Your task to perform on an android device: change keyboard looks Image 0: 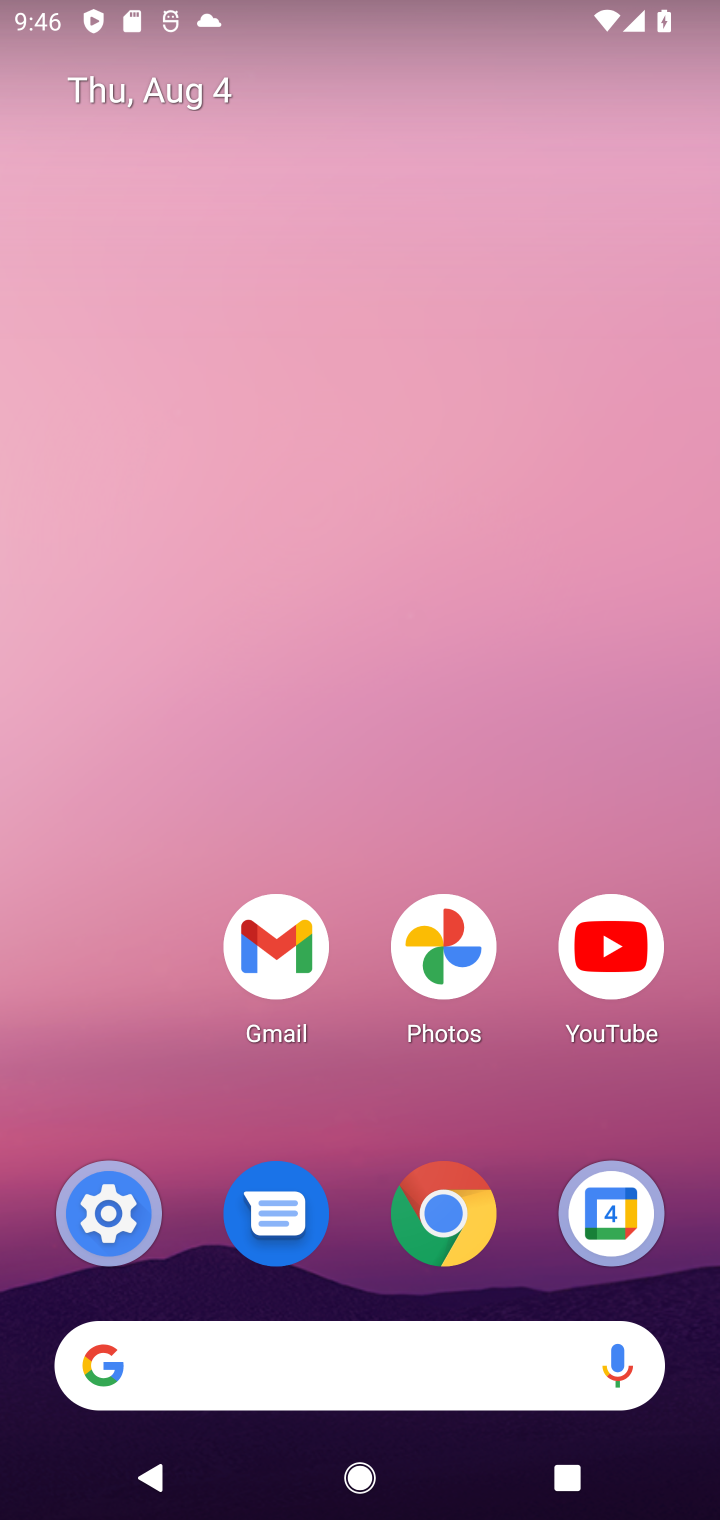
Step 0: drag from (355, 1178) to (336, 57)
Your task to perform on an android device: change keyboard looks Image 1: 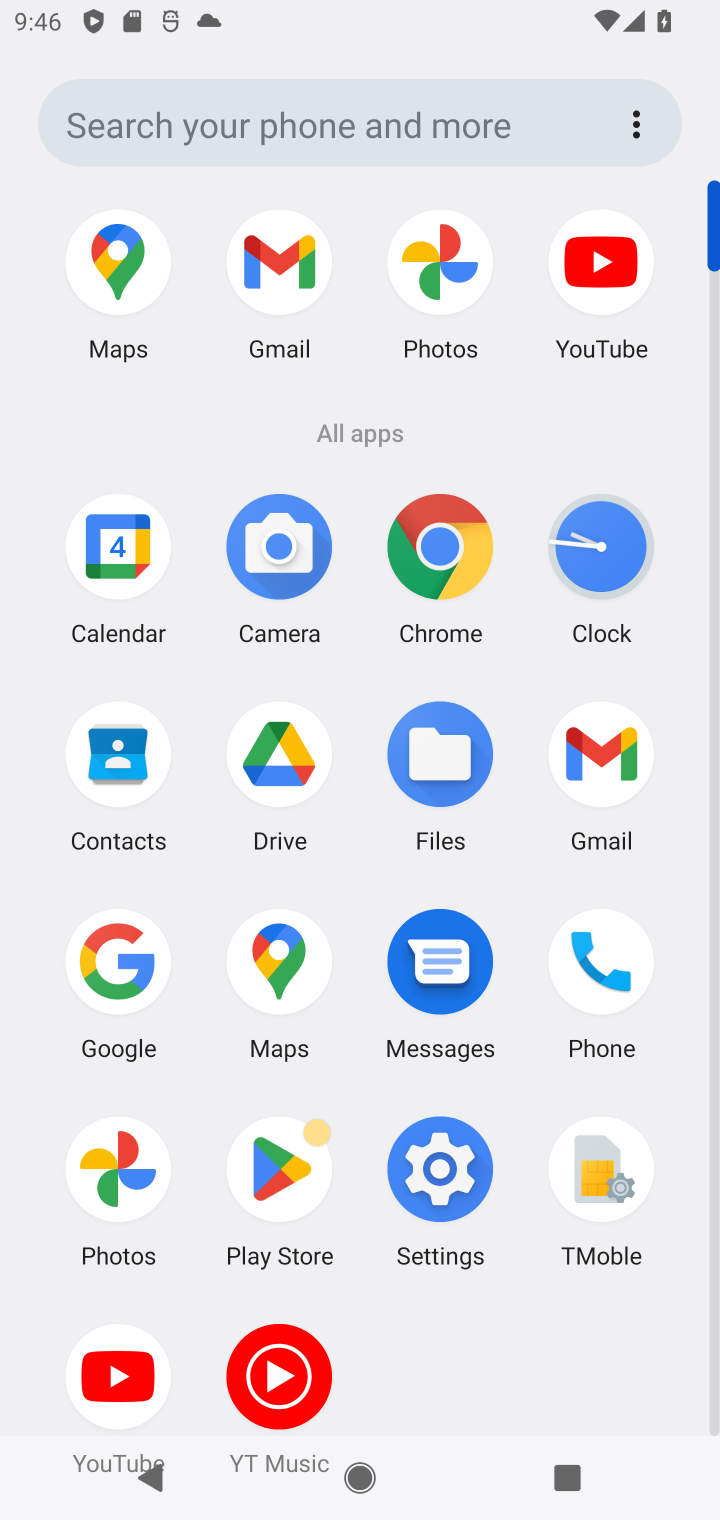
Step 1: click (423, 1148)
Your task to perform on an android device: change keyboard looks Image 2: 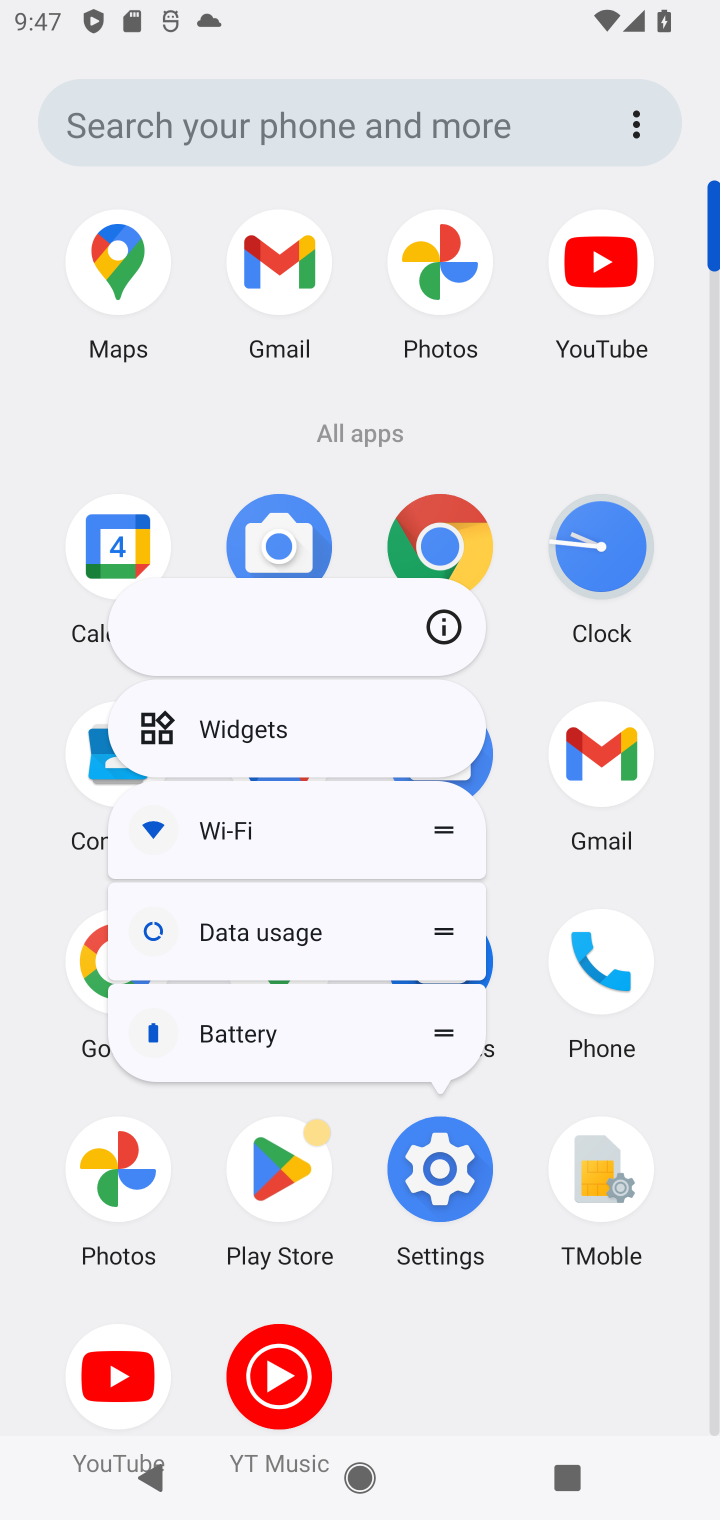
Step 2: click (430, 1160)
Your task to perform on an android device: change keyboard looks Image 3: 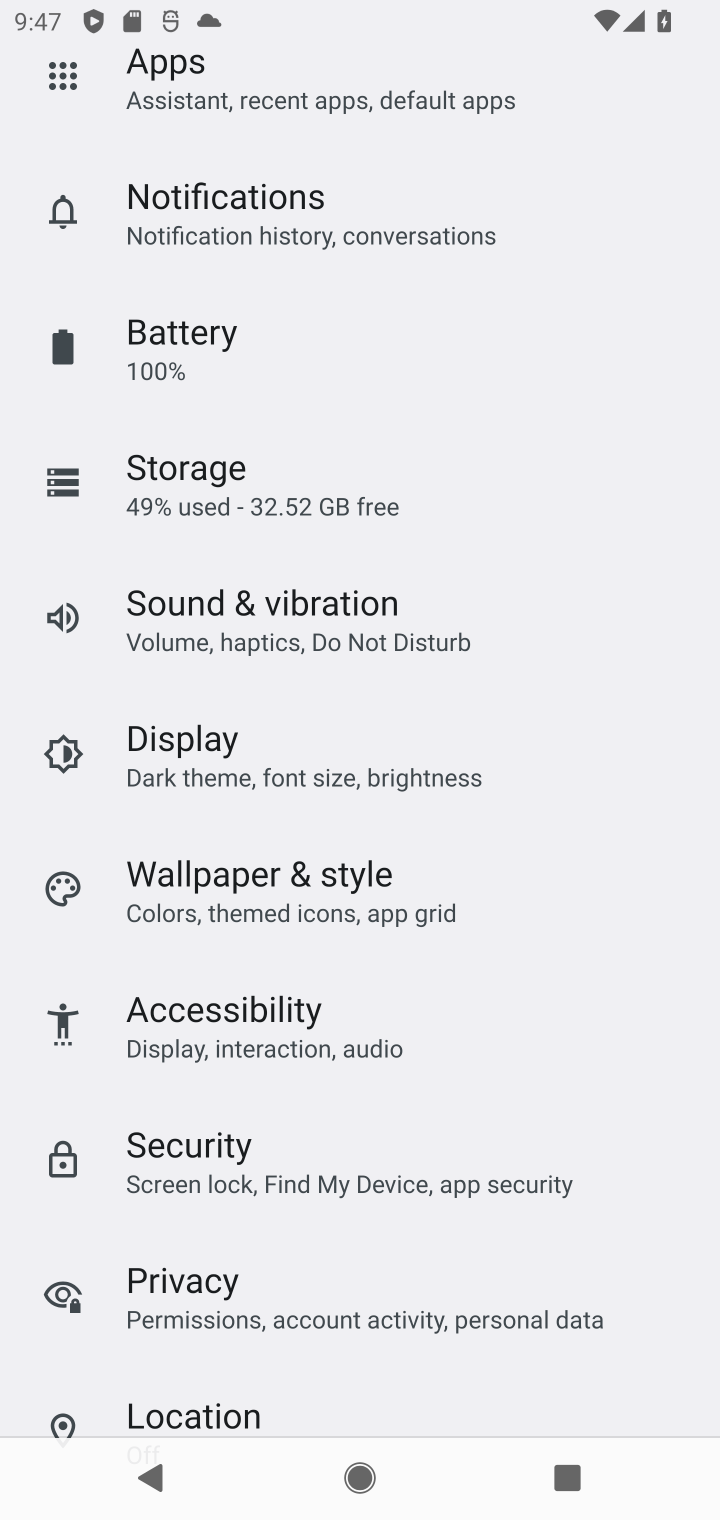
Step 3: drag from (325, 1362) to (395, 274)
Your task to perform on an android device: change keyboard looks Image 4: 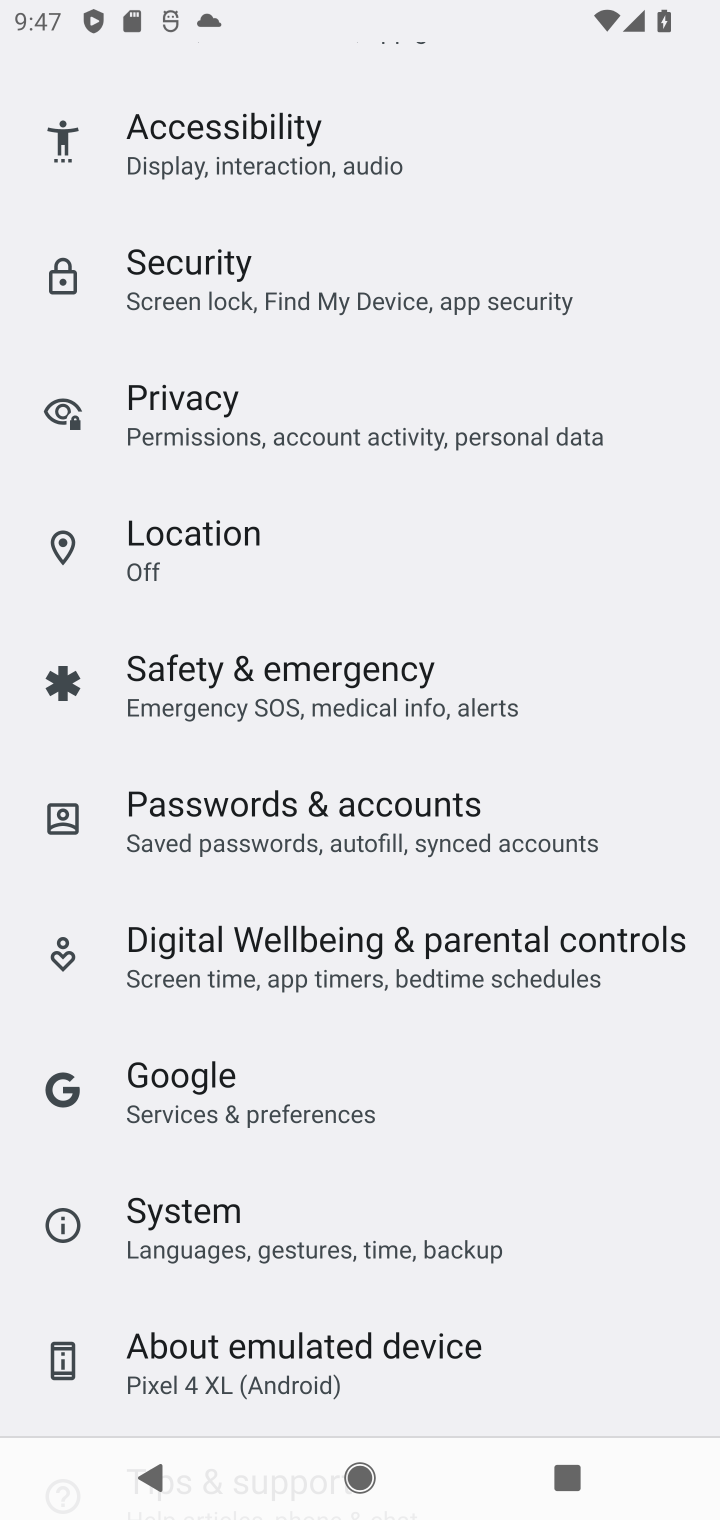
Step 4: click (251, 1216)
Your task to perform on an android device: change keyboard looks Image 5: 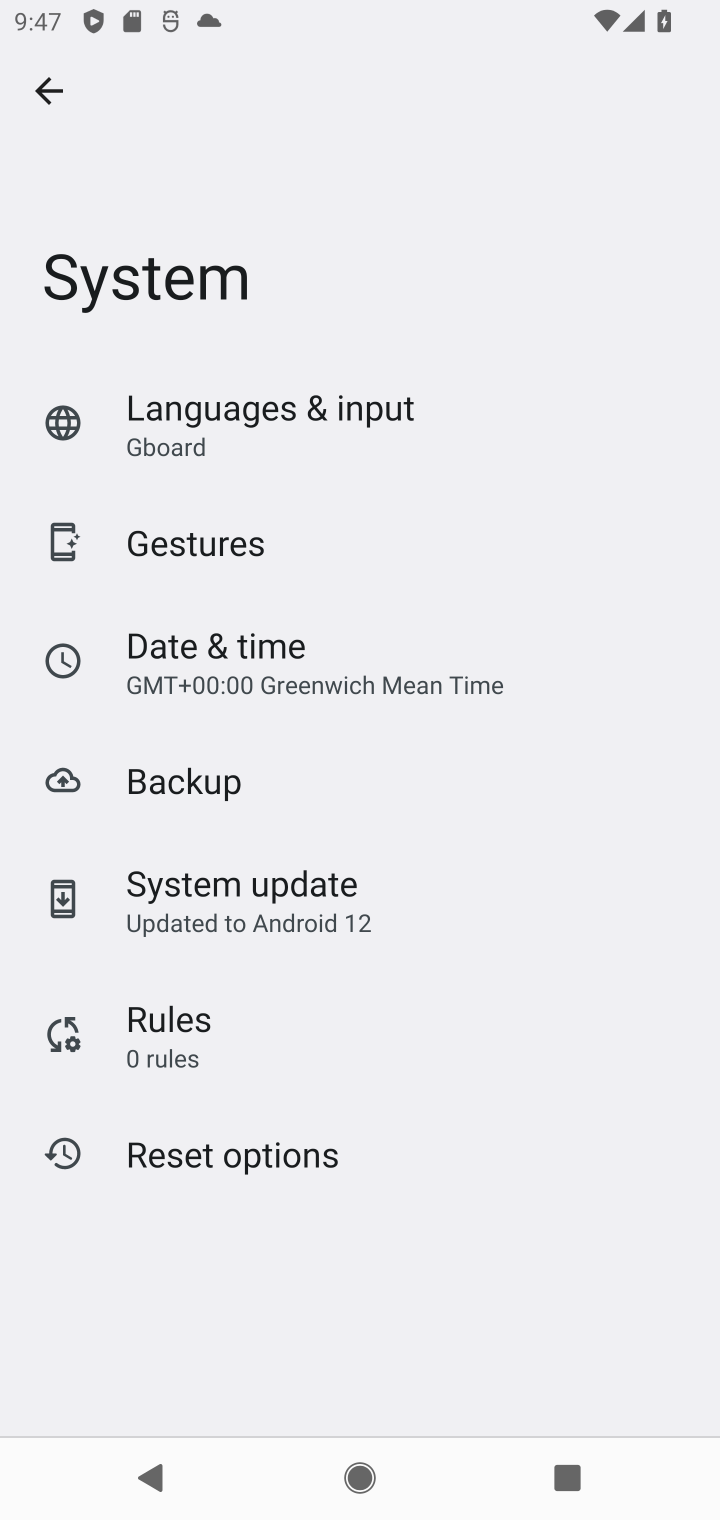
Step 5: click (190, 423)
Your task to perform on an android device: change keyboard looks Image 6: 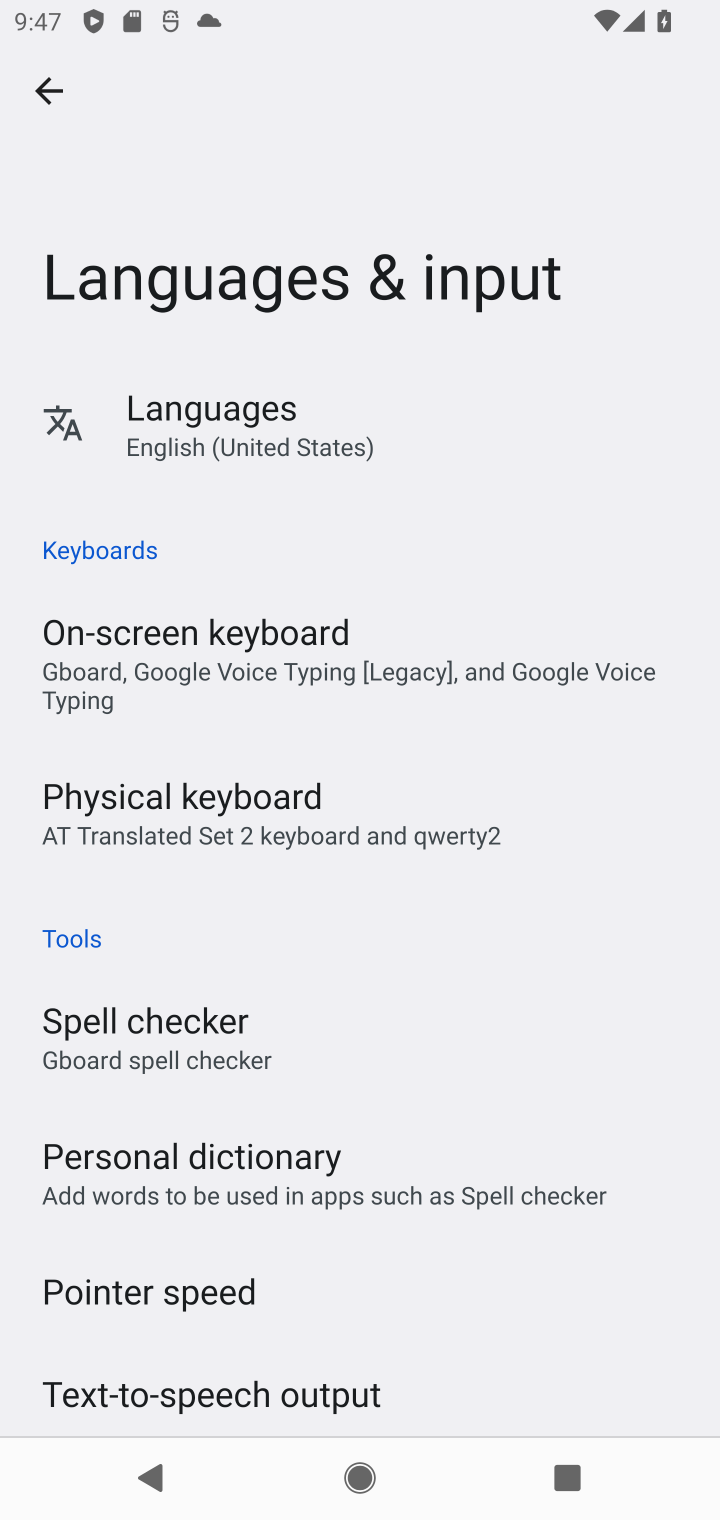
Step 6: click (53, 109)
Your task to perform on an android device: change keyboard looks Image 7: 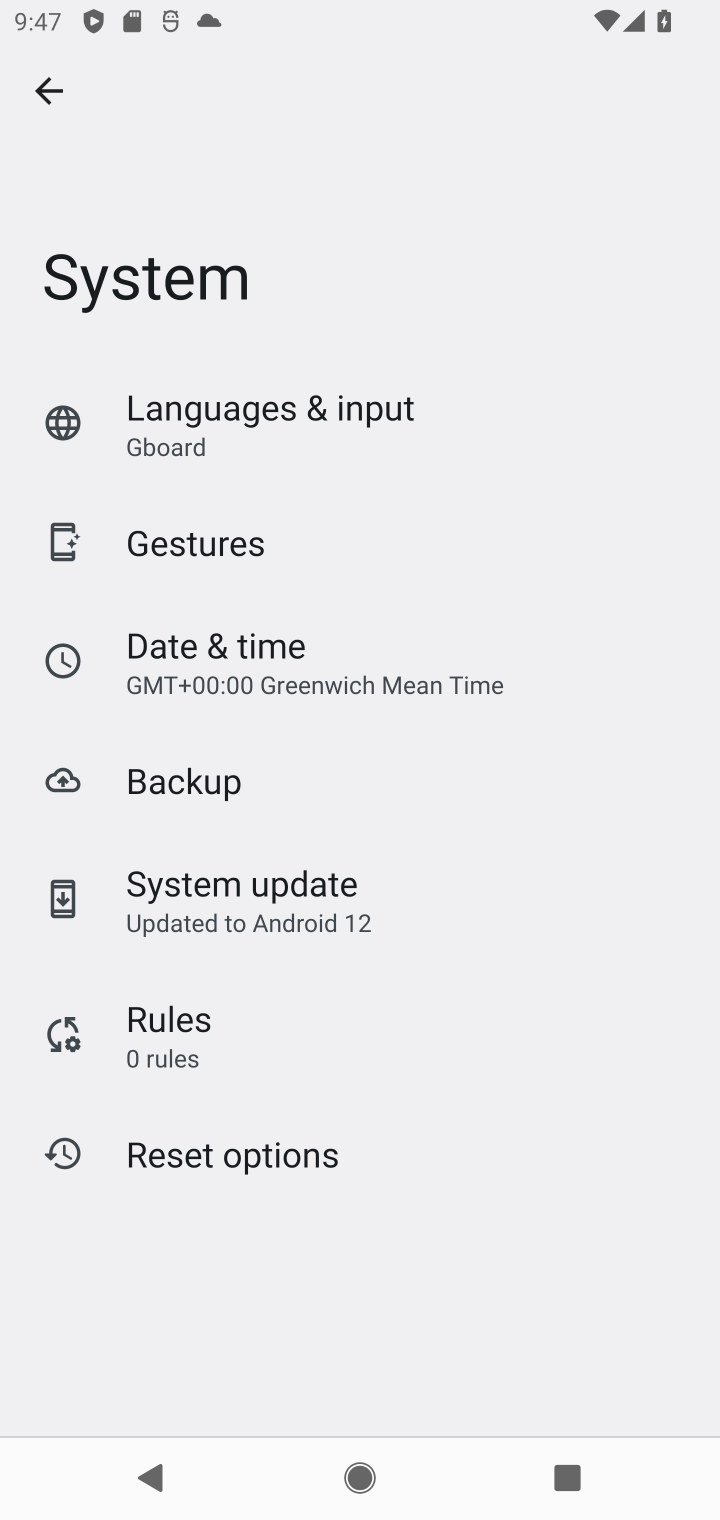
Step 7: click (276, 432)
Your task to perform on an android device: change keyboard looks Image 8: 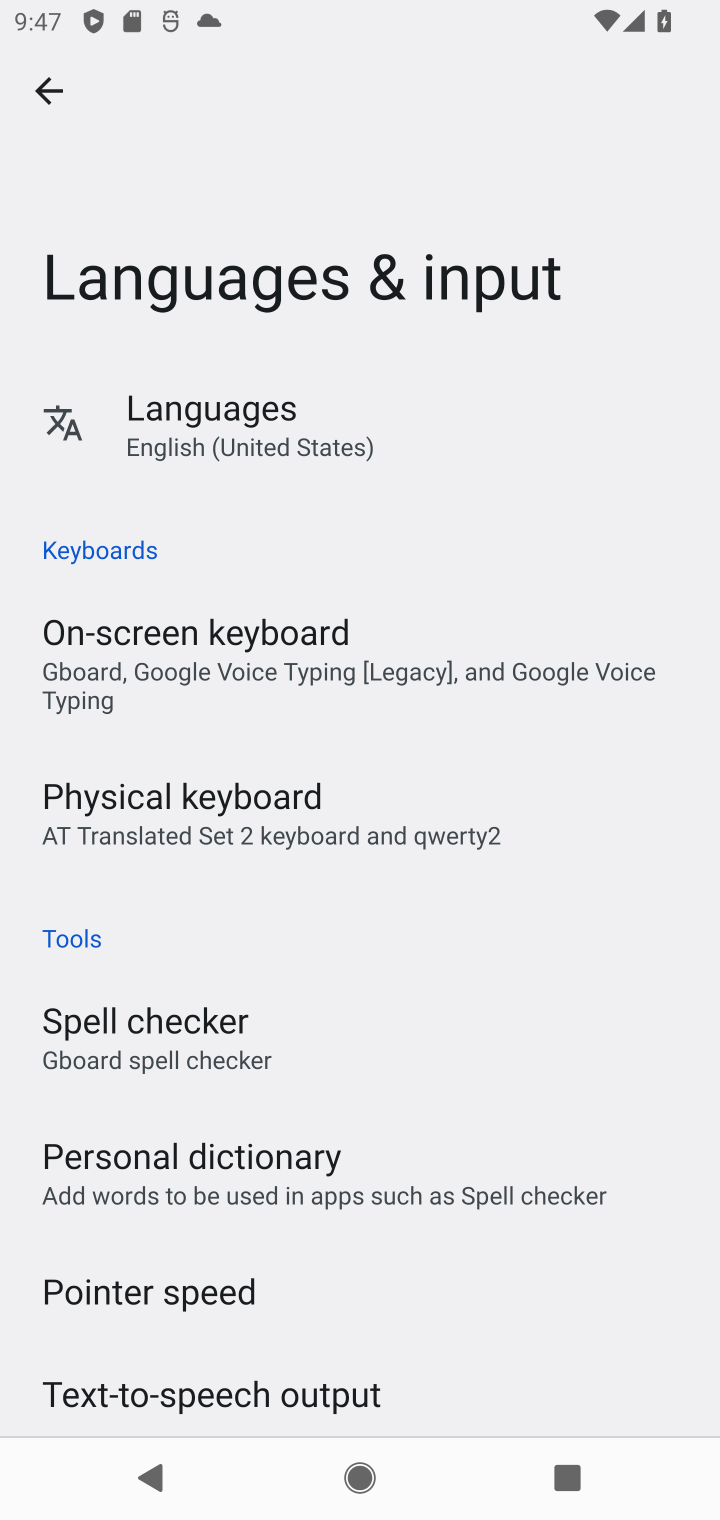
Step 8: click (312, 610)
Your task to perform on an android device: change keyboard looks Image 9: 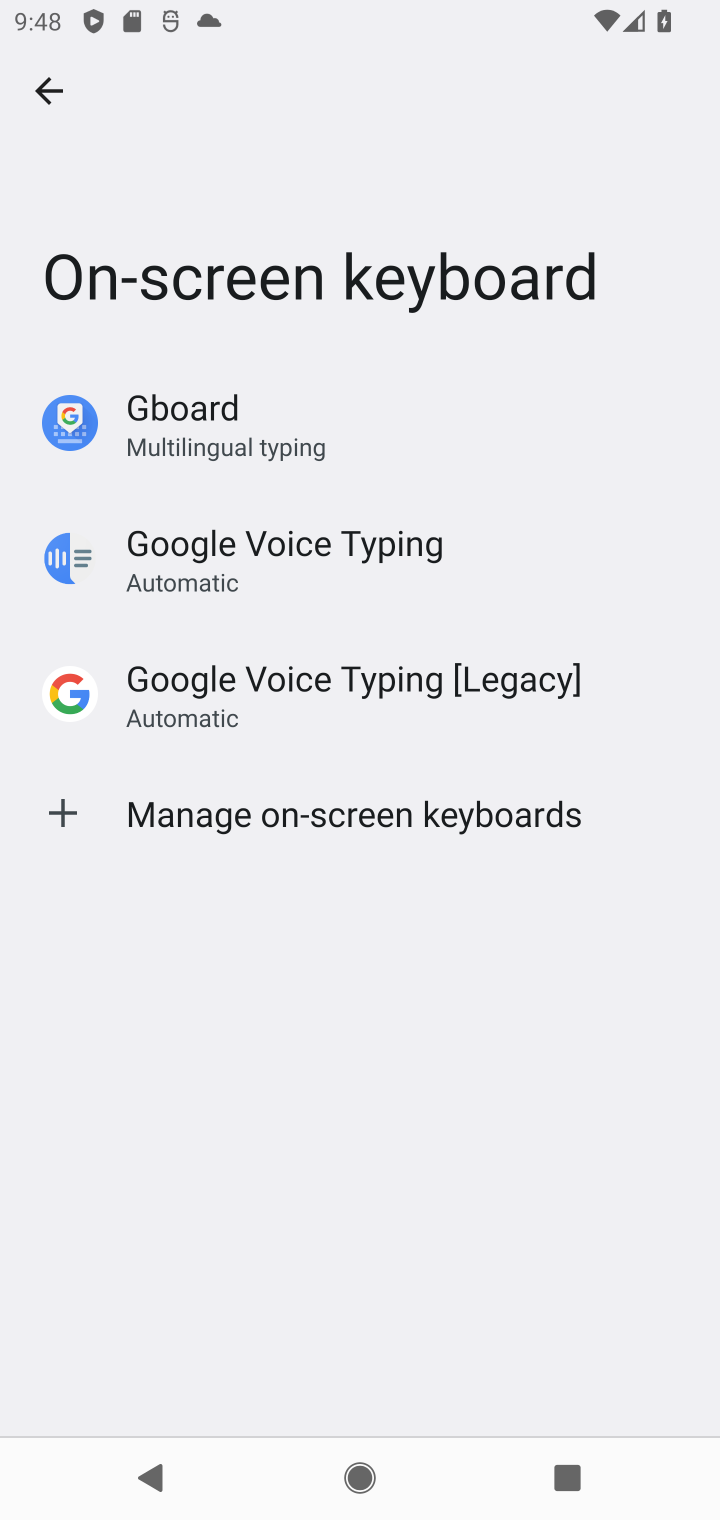
Step 9: click (242, 439)
Your task to perform on an android device: change keyboard looks Image 10: 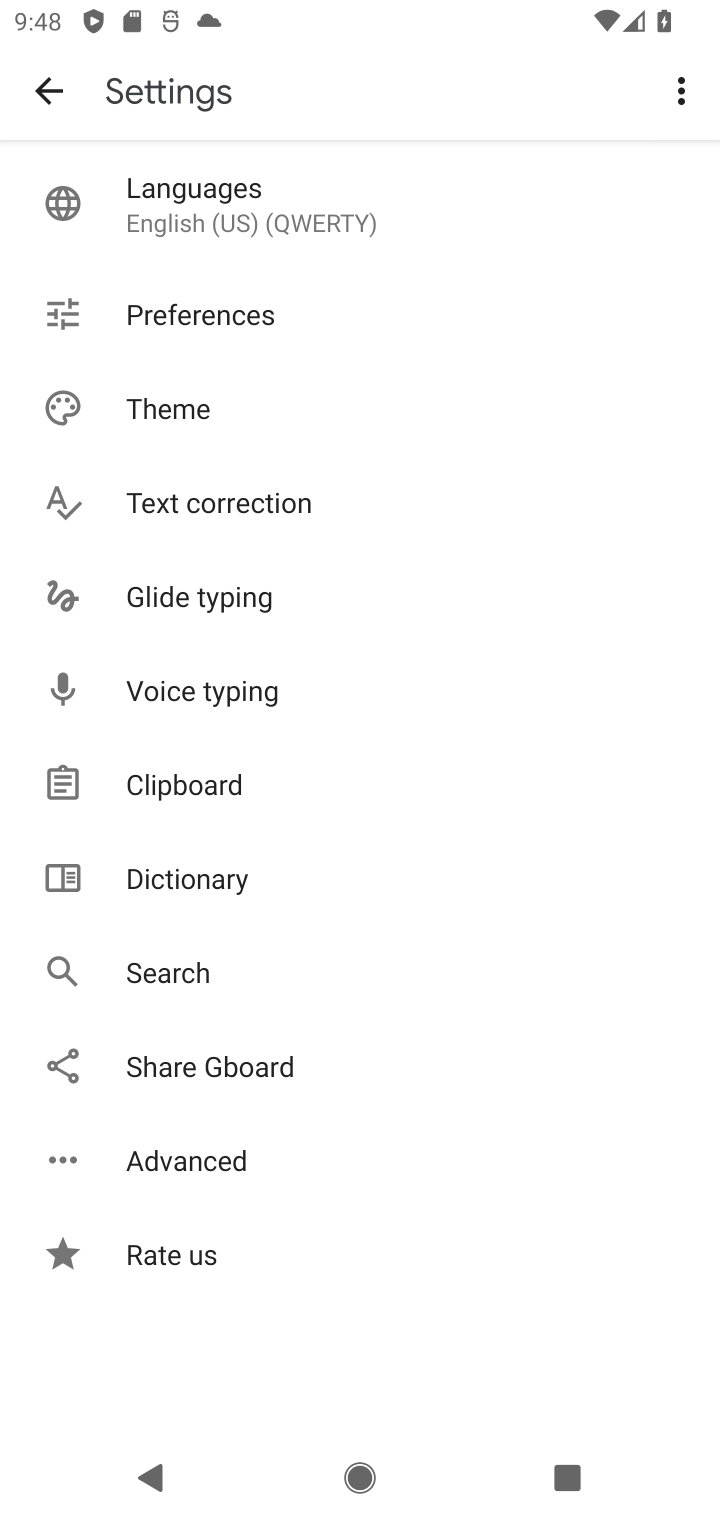
Step 10: click (203, 400)
Your task to perform on an android device: change keyboard looks Image 11: 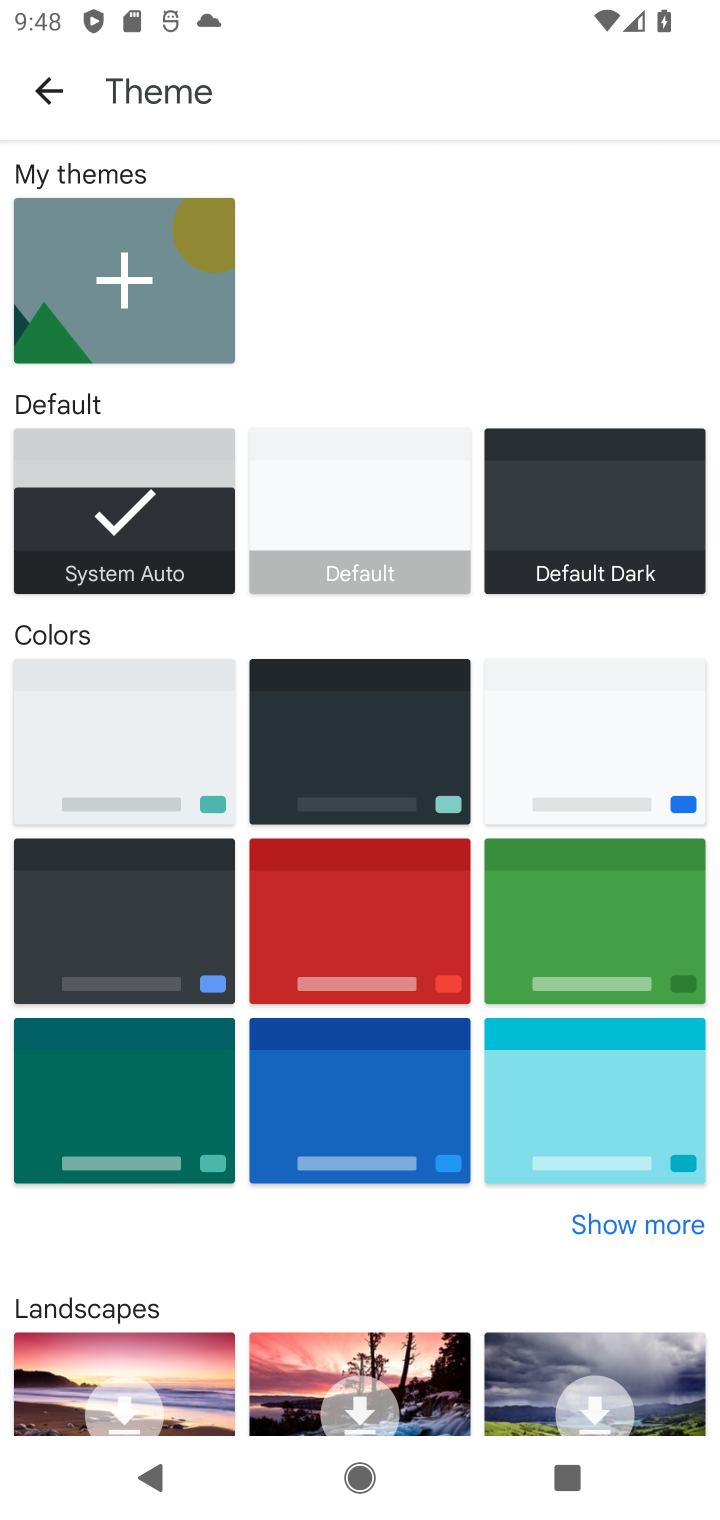
Step 11: click (332, 943)
Your task to perform on an android device: change keyboard looks Image 12: 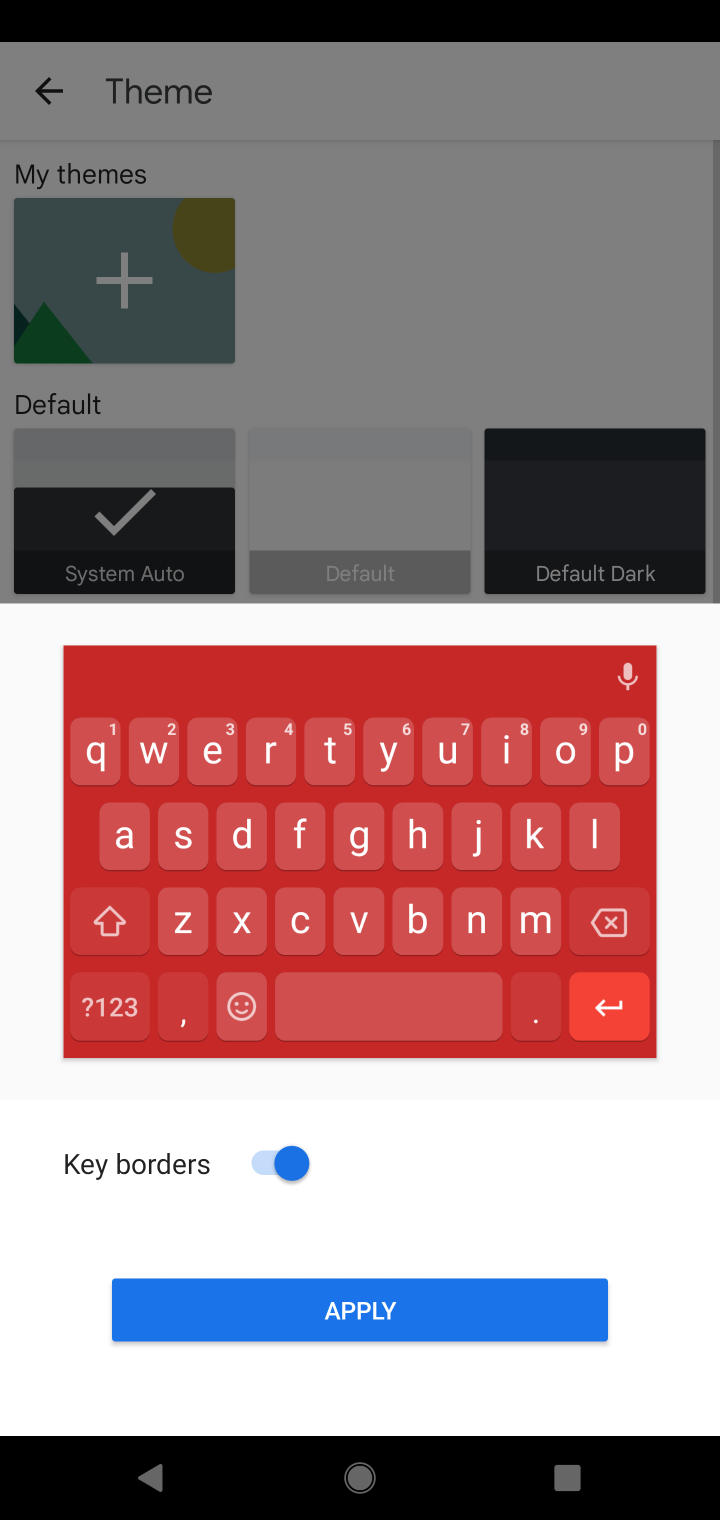
Step 12: click (418, 1321)
Your task to perform on an android device: change keyboard looks Image 13: 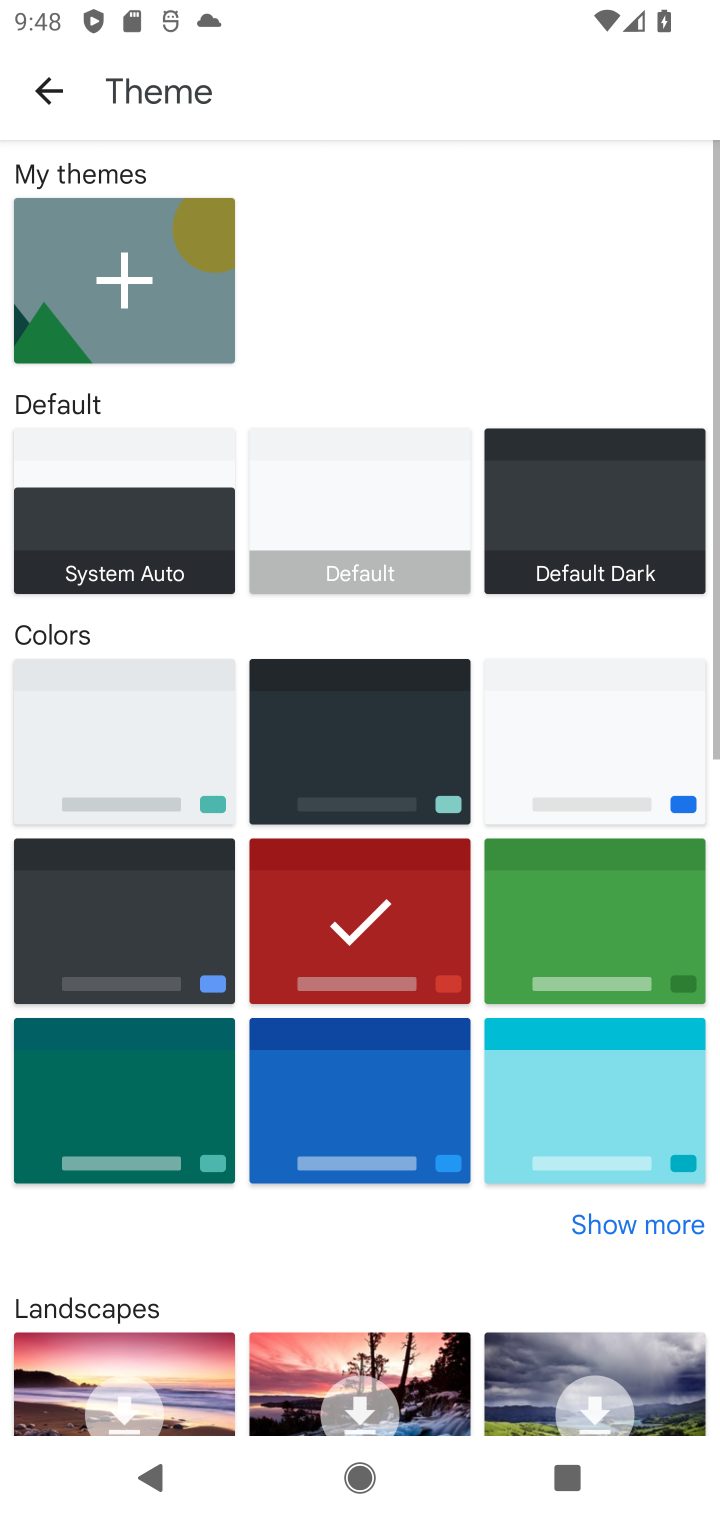
Step 13: task complete